Your task to perform on an android device: What's the weather today? Image 0: 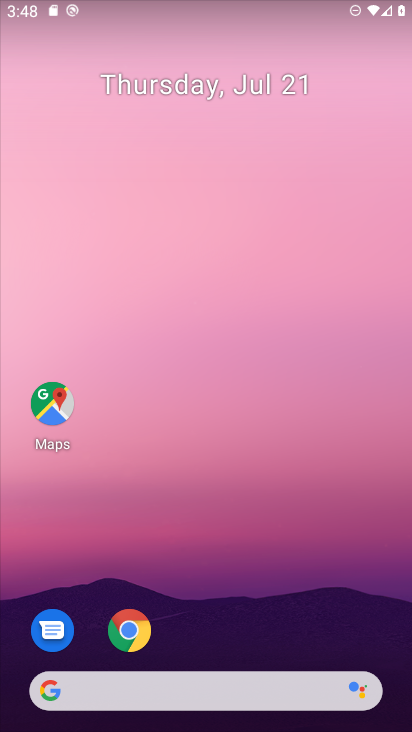
Step 0: click (187, 688)
Your task to perform on an android device: What's the weather today? Image 1: 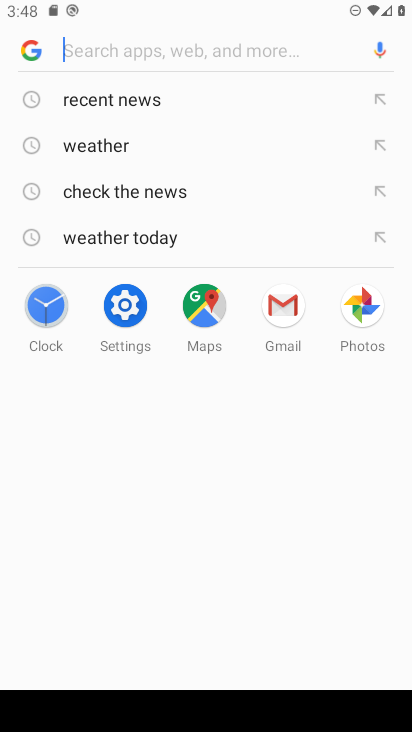
Step 1: click (155, 151)
Your task to perform on an android device: What's the weather today? Image 2: 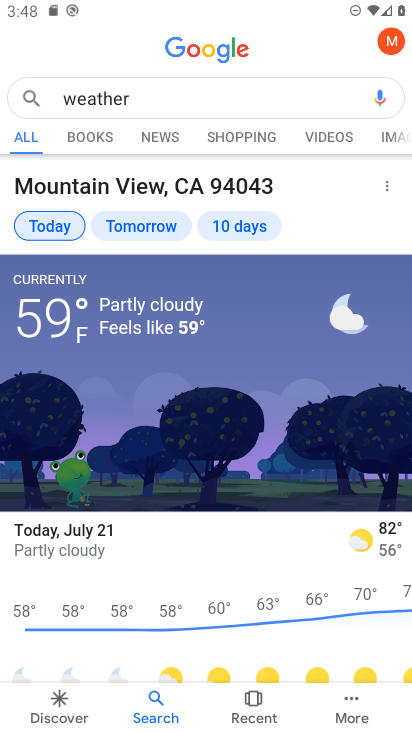
Step 2: task complete